Your task to perform on an android device: Set the phone to "Do not disturb". Image 0: 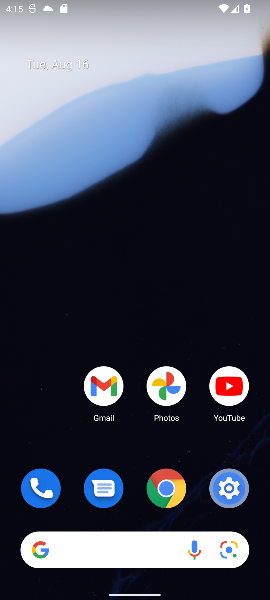
Step 0: task complete